Your task to perform on an android device: Turn on the flashlight Image 0: 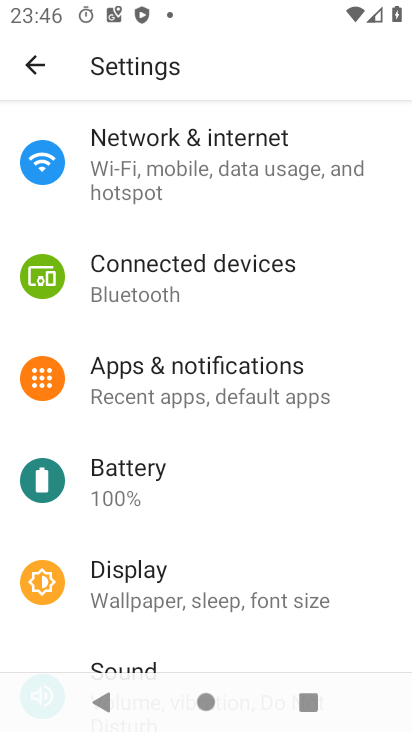
Step 0: drag from (186, 213) to (352, 704)
Your task to perform on an android device: Turn on the flashlight Image 1: 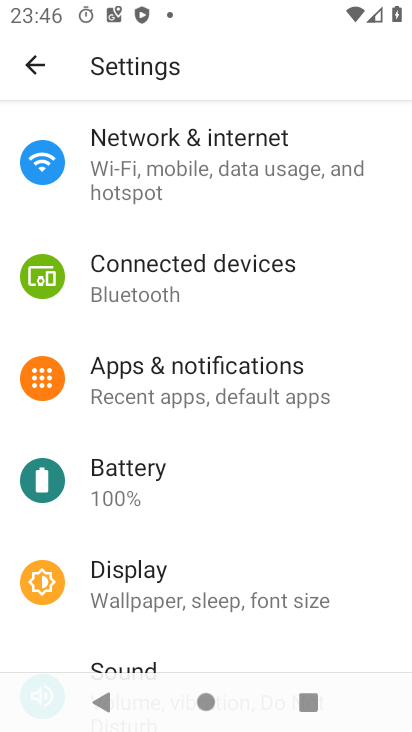
Step 1: drag from (204, 187) to (275, 540)
Your task to perform on an android device: Turn on the flashlight Image 2: 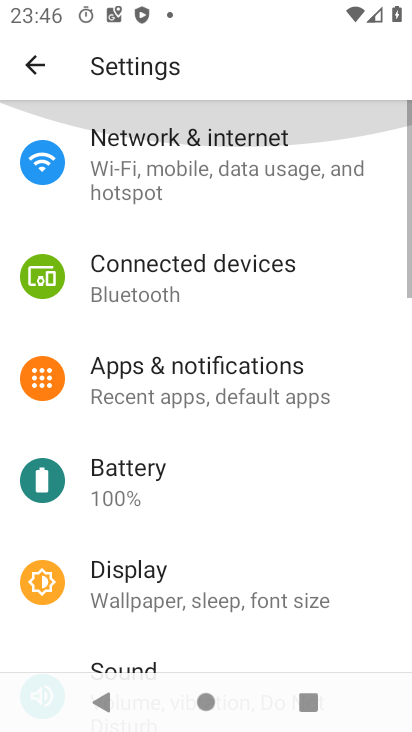
Step 2: drag from (252, 504) to (279, 197)
Your task to perform on an android device: Turn on the flashlight Image 3: 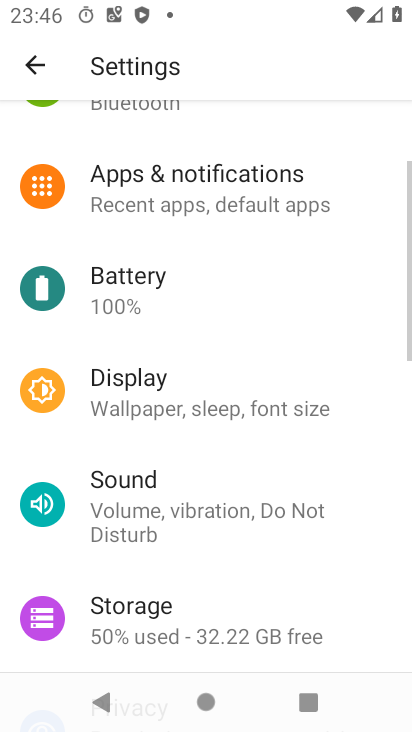
Step 3: click (52, 64)
Your task to perform on an android device: Turn on the flashlight Image 4: 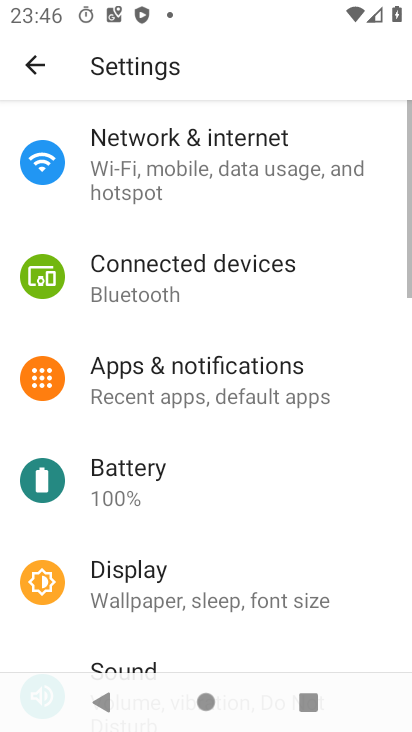
Step 4: click (45, 73)
Your task to perform on an android device: Turn on the flashlight Image 5: 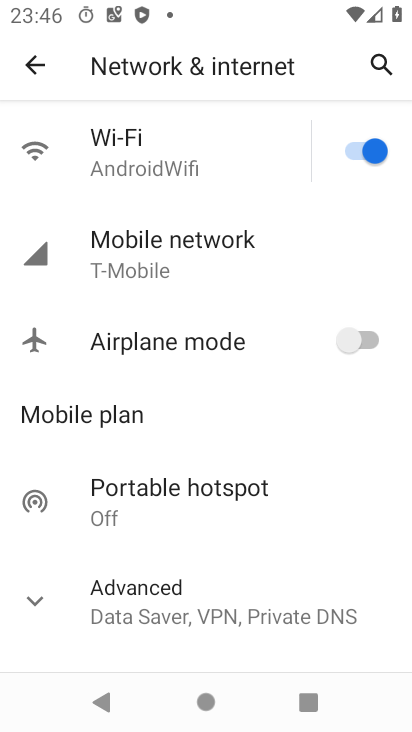
Step 5: click (34, 64)
Your task to perform on an android device: Turn on the flashlight Image 6: 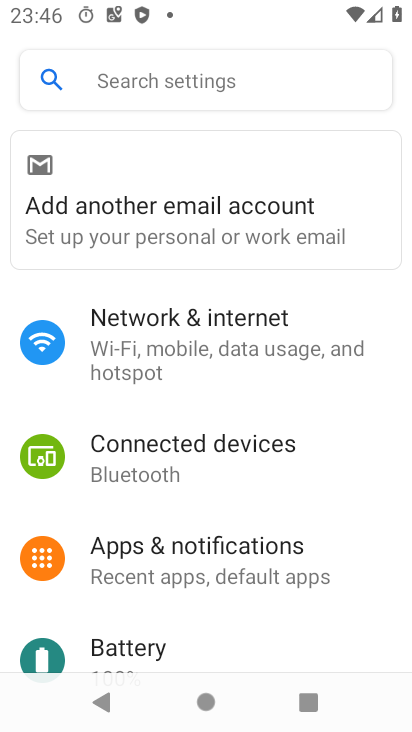
Step 6: click (180, 96)
Your task to perform on an android device: Turn on the flashlight Image 7: 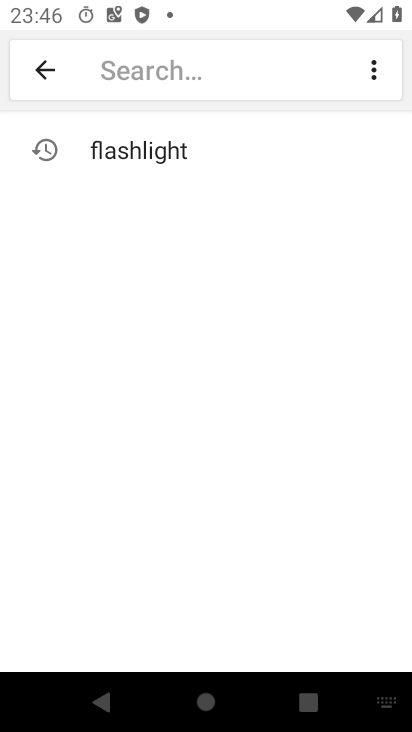
Step 7: click (164, 162)
Your task to perform on an android device: Turn on the flashlight Image 8: 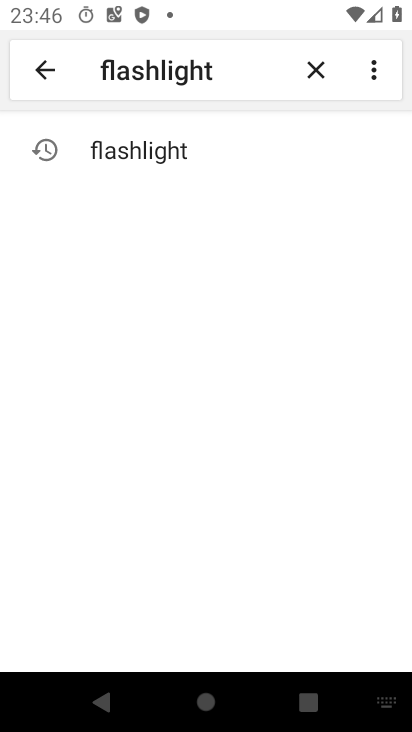
Step 8: task complete